Your task to perform on an android device: What is the recent news? Image 0: 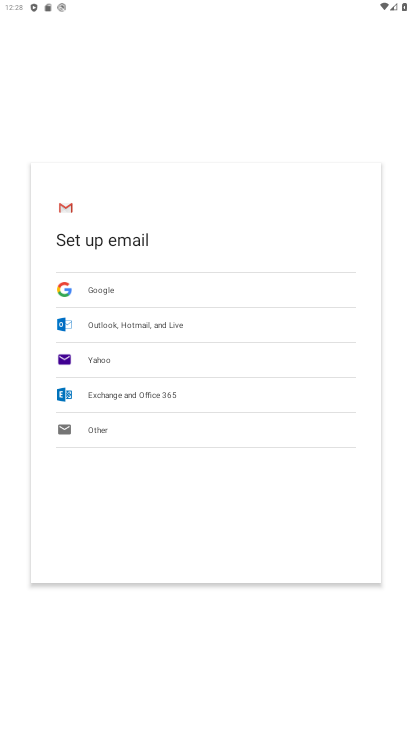
Step 0: press home button
Your task to perform on an android device: What is the recent news? Image 1: 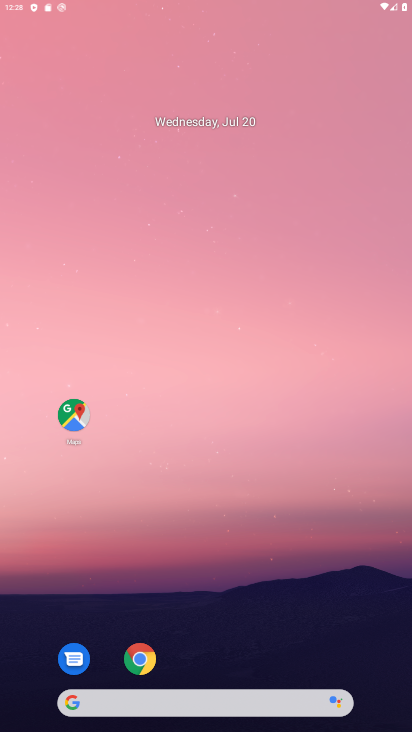
Step 1: drag from (381, 667) to (231, 38)
Your task to perform on an android device: What is the recent news? Image 2: 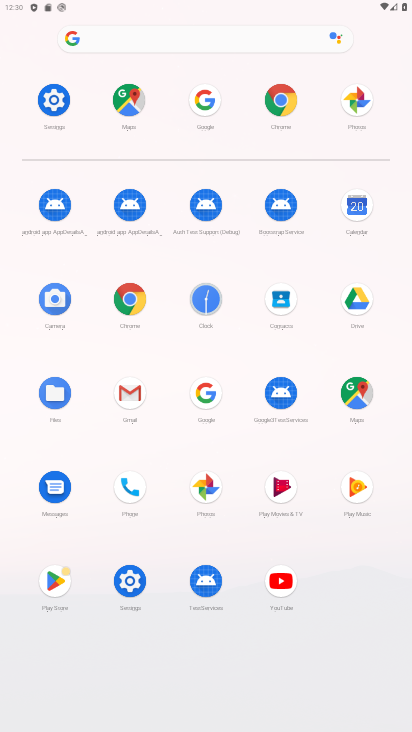
Step 2: click (205, 391)
Your task to perform on an android device: What is the recent news? Image 3: 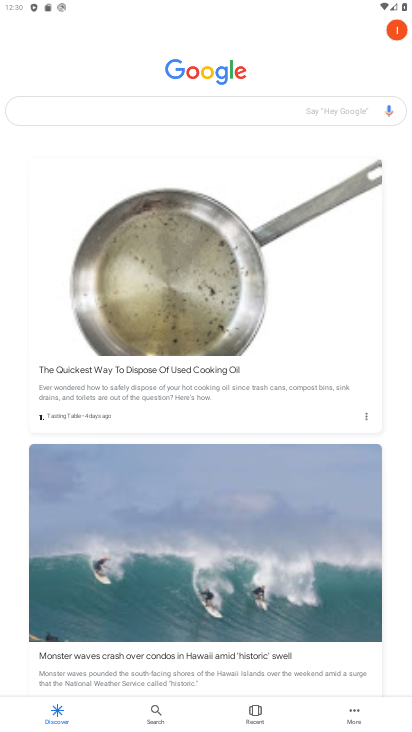
Step 3: click (80, 103)
Your task to perform on an android device: What is the recent news? Image 4: 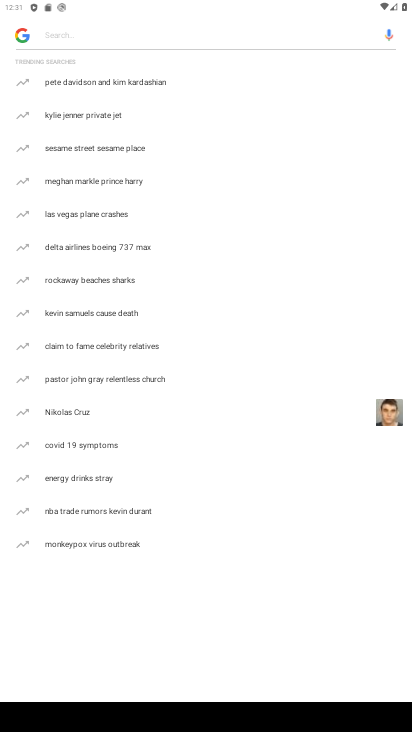
Step 4: type "What is the recent news?"
Your task to perform on an android device: What is the recent news? Image 5: 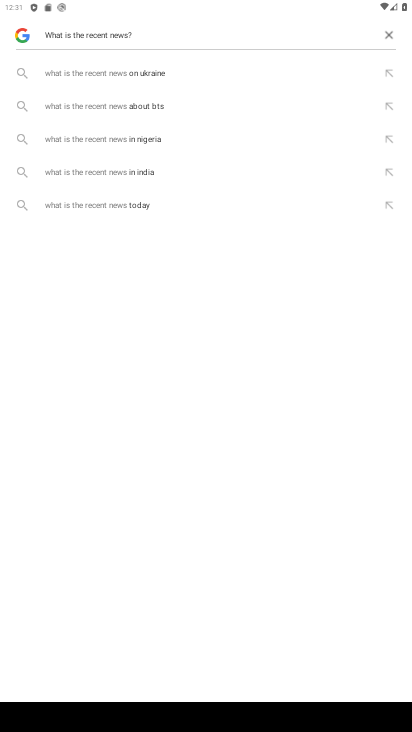
Step 5: click (110, 181)
Your task to perform on an android device: What is the recent news? Image 6: 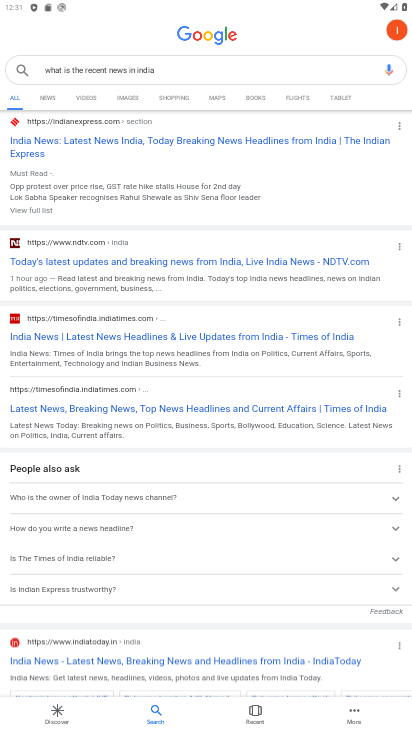
Step 6: task complete